Your task to perform on an android device: turn off picture-in-picture Image 0: 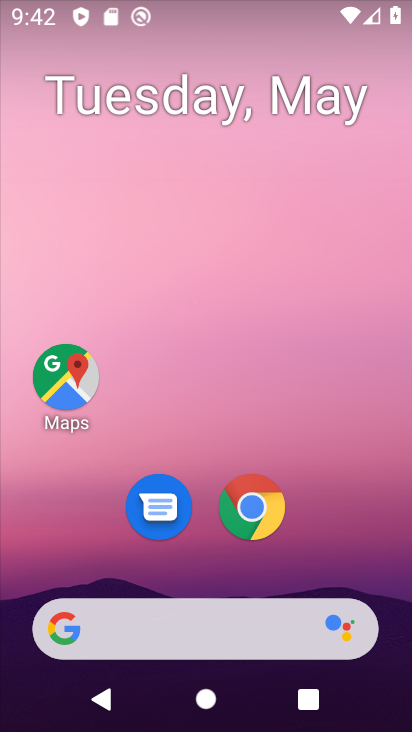
Step 0: click (248, 521)
Your task to perform on an android device: turn off picture-in-picture Image 1: 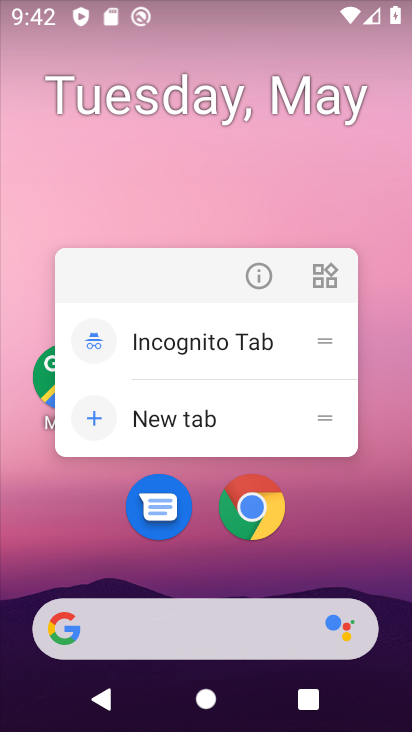
Step 1: click (267, 267)
Your task to perform on an android device: turn off picture-in-picture Image 2: 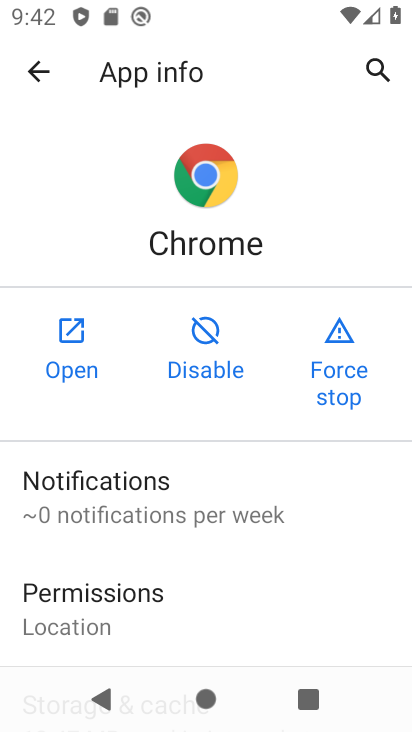
Step 2: drag from (285, 656) to (182, 161)
Your task to perform on an android device: turn off picture-in-picture Image 3: 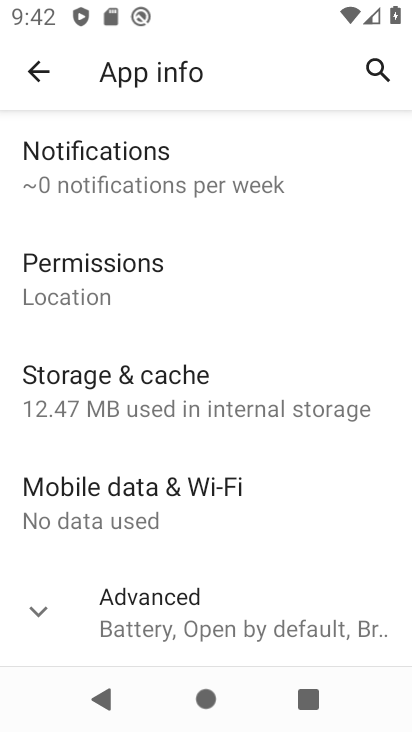
Step 3: click (247, 622)
Your task to perform on an android device: turn off picture-in-picture Image 4: 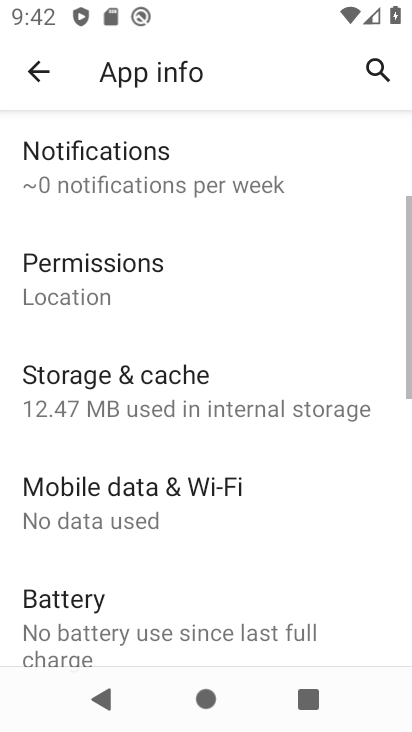
Step 4: drag from (247, 622) to (183, 261)
Your task to perform on an android device: turn off picture-in-picture Image 5: 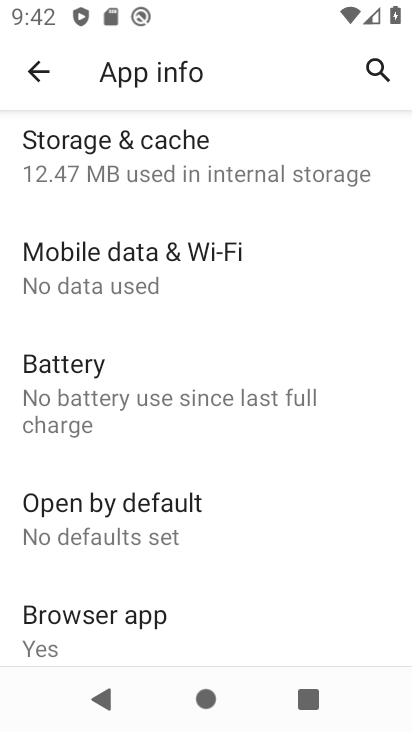
Step 5: drag from (230, 623) to (198, 123)
Your task to perform on an android device: turn off picture-in-picture Image 6: 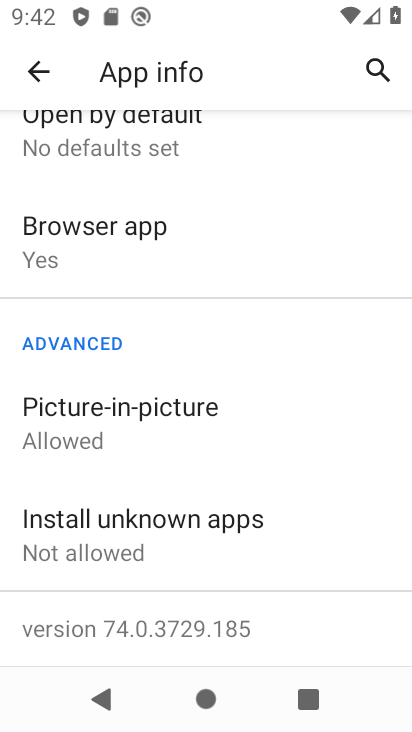
Step 6: click (204, 396)
Your task to perform on an android device: turn off picture-in-picture Image 7: 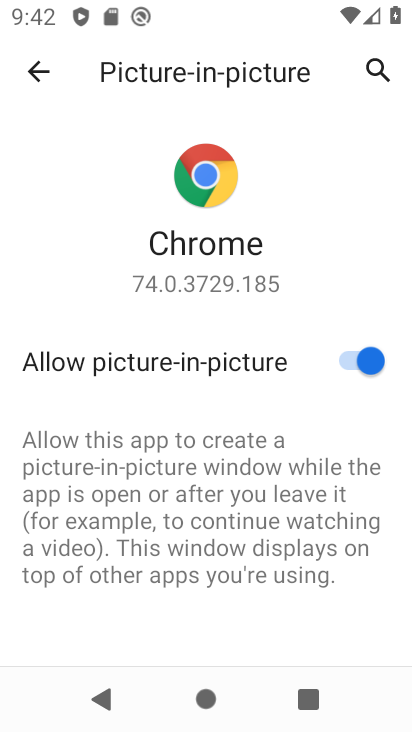
Step 7: click (351, 357)
Your task to perform on an android device: turn off picture-in-picture Image 8: 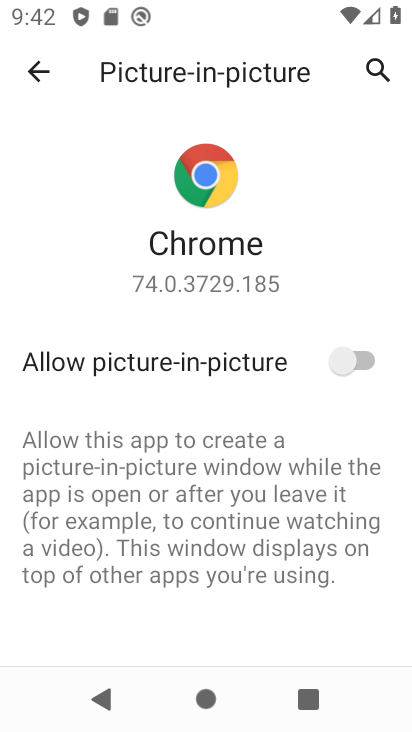
Step 8: task complete